Your task to perform on an android device: Do I have any events this weekend? Image 0: 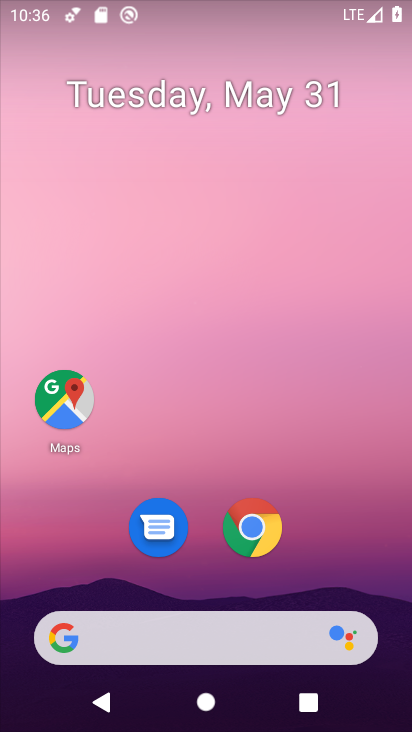
Step 0: press home button
Your task to perform on an android device: Do I have any events this weekend? Image 1: 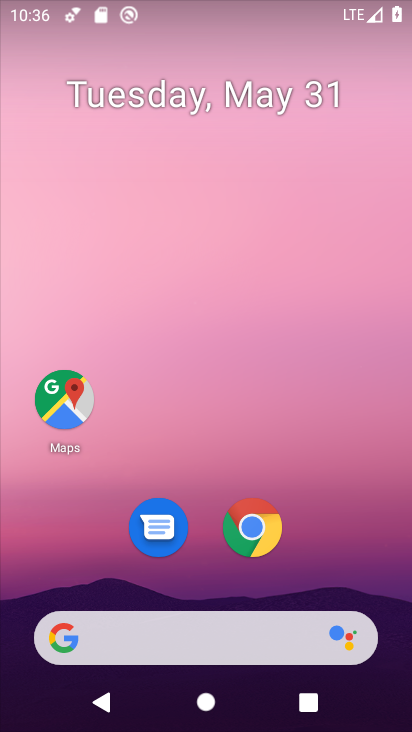
Step 1: drag from (353, 603) to (336, 3)
Your task to perform on an android device: Do I have any events this weekend? Image 2: 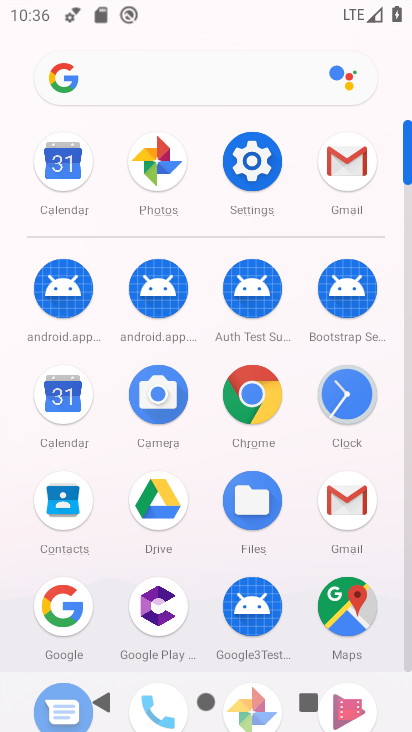
Step 2: click (54, 167)
Your task to perform on an android device: Do I have any events this weekend? Image 3: 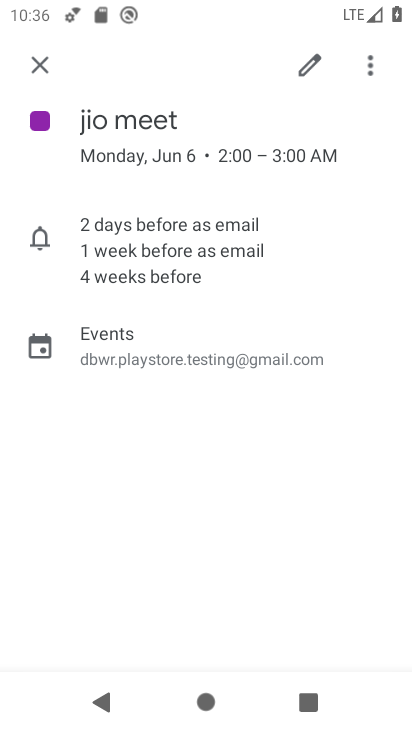
Step 3: click (36, 72)
Your task to perform on an android device: Do I have any events this weekend? Image 4: 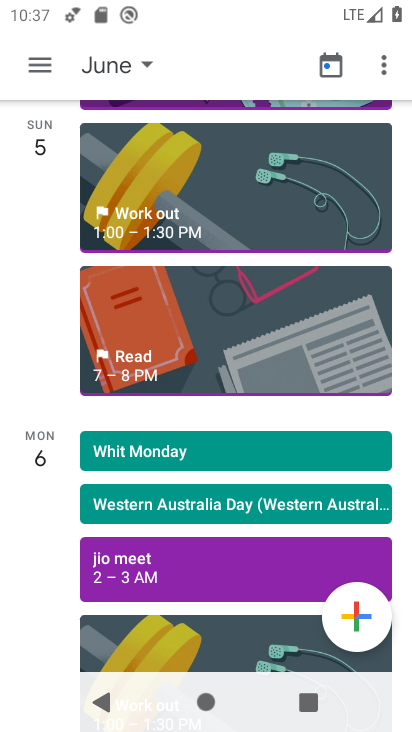
Step 4: click (334, 67)
Your task to perform on an android device: Do I have any events this weekend? Image 5: 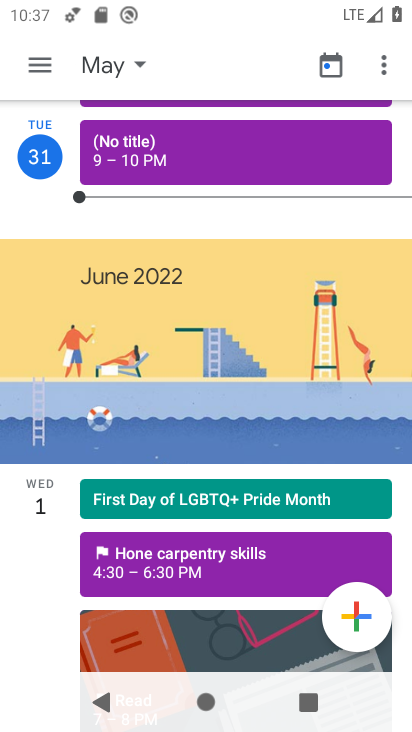
Step 5: drag from (180, 507) to (174, 156)
Your task to perform on an android device: Do I have any events this weekend? Image 6: 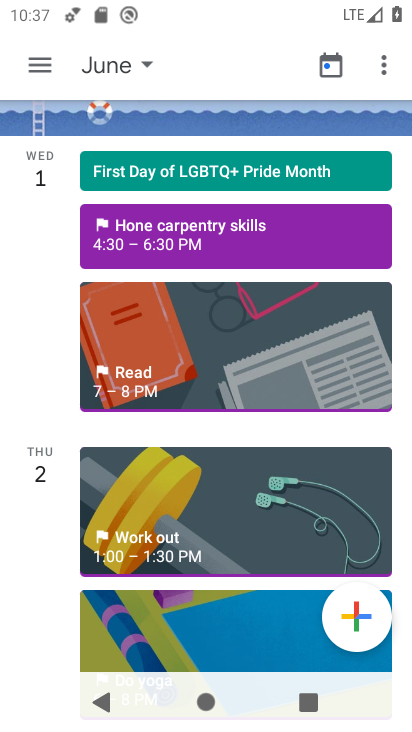
Step 6: drag from (162, 564) to (167, 171)
Your task to perform on an android device: Do I have any events this weekend? Image 7: 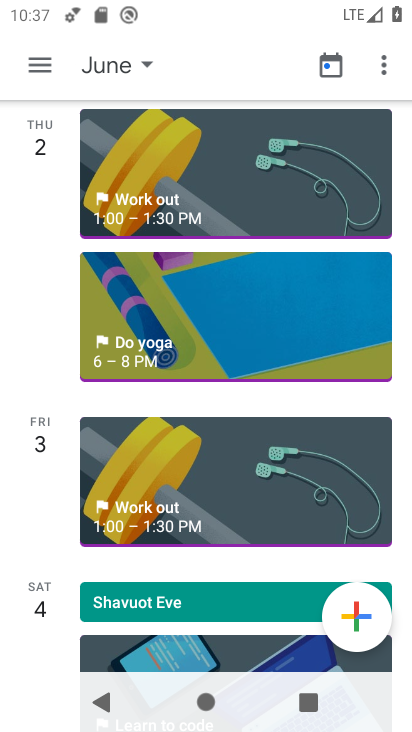
Step 7: drag from (167, 535) to (178, 159)
Your task to perform on an android device: Do I have any events this weekend? Image 8: 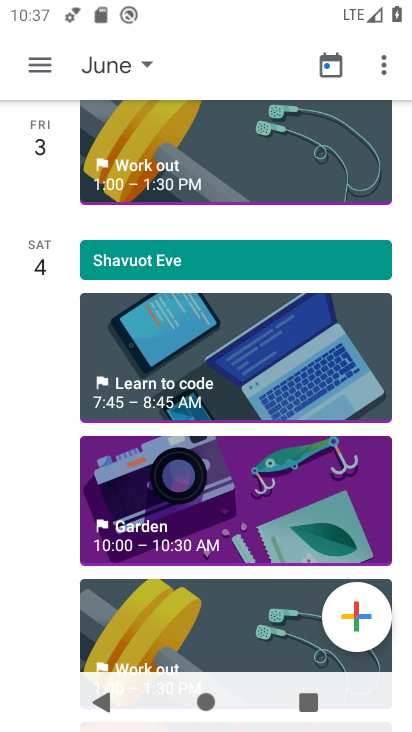
Step 8: drag from (178, 471) to (187, 182)
Your task to perform on an android device: Do I have any events this weekend? Image 9: 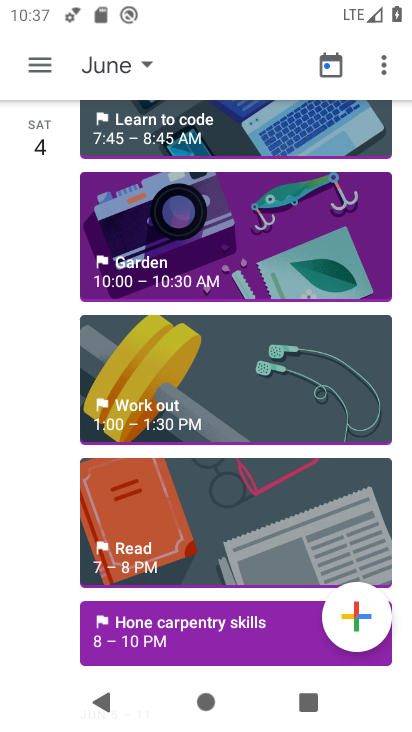
Step 9: drag from (186, 456) to (171, 225)
Your task to perform on an android device: Do I have any events this weekend? Image 10: 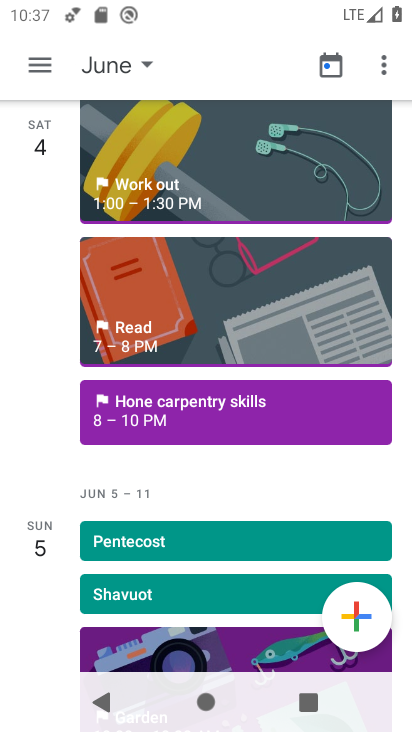
Step 10: click (172, 407)
Your task to perform on an android device: Do I have any events this weekend? Image 11: 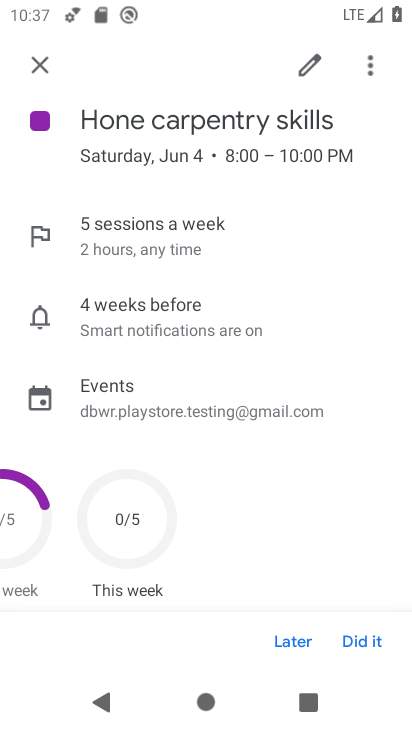
Step 11: task complete